Your task to perform on an android device: Open CNN.com Image 0: 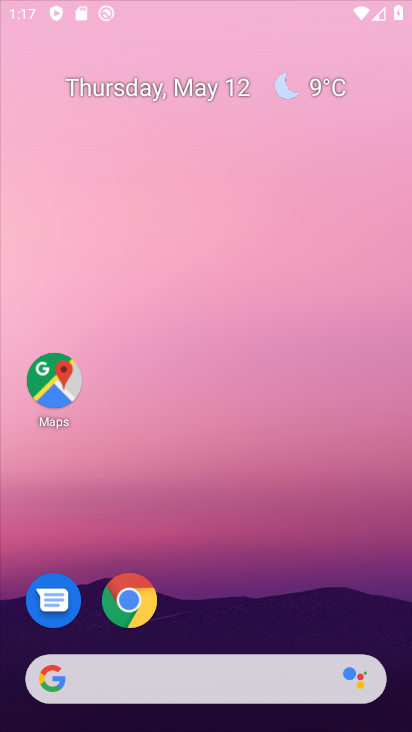
Step 0: press home button
Your task to perform on an android device: Open CNN.com Image 1: 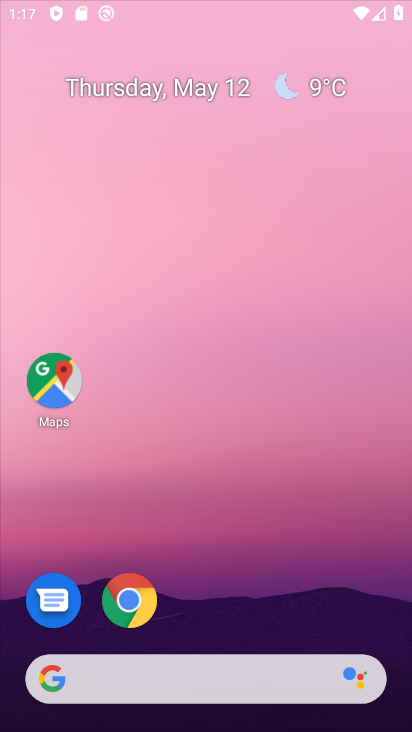
Step 1: click (324, 353)
Your task to perform on an android device: Open CNN.com Image 2: 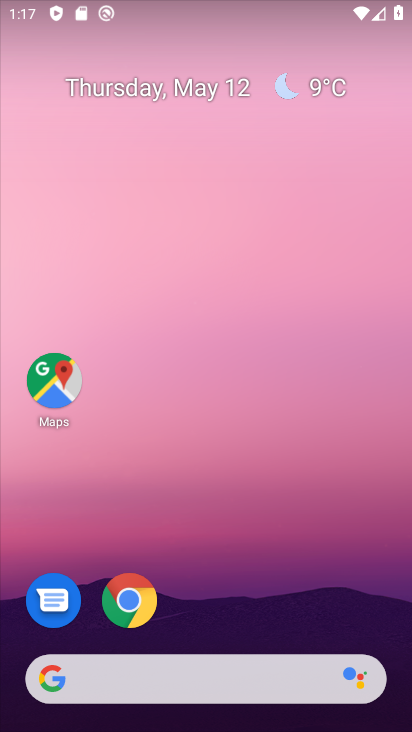
Step 2: press home button
Your task to perform on an android device: Open CNN.com Image 3: 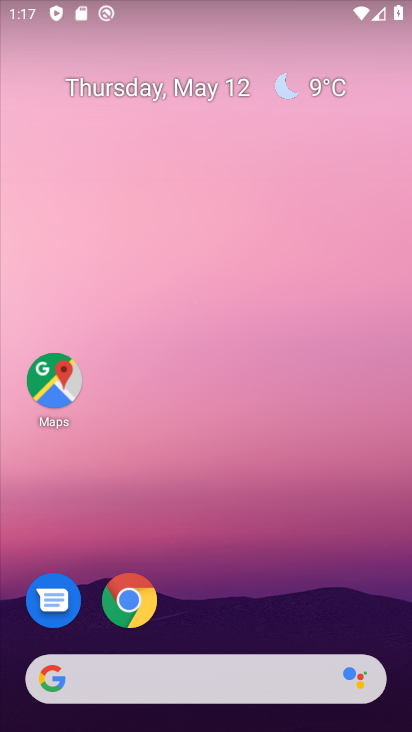
Step 3: click (117, 602)
Your task to perform on an android device: Open CNN.com Image 4: 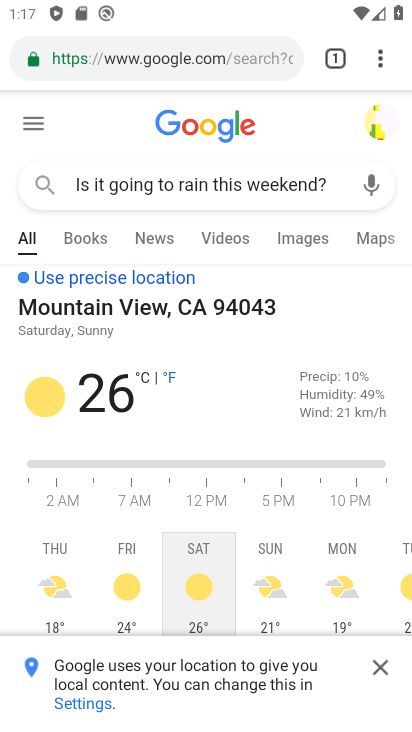
Step 4: click (183, 50)
Your task to perform on an android device: Open CNN.com Image 5: 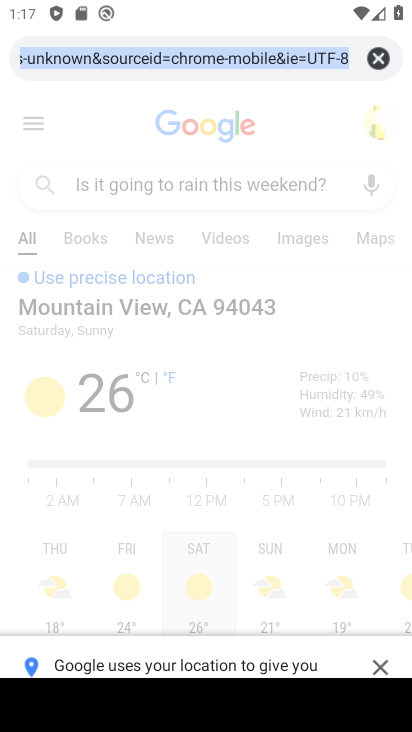
Step 5: click (370, 62)
Your task to perform on an android device: Open CNN.com Image 6: 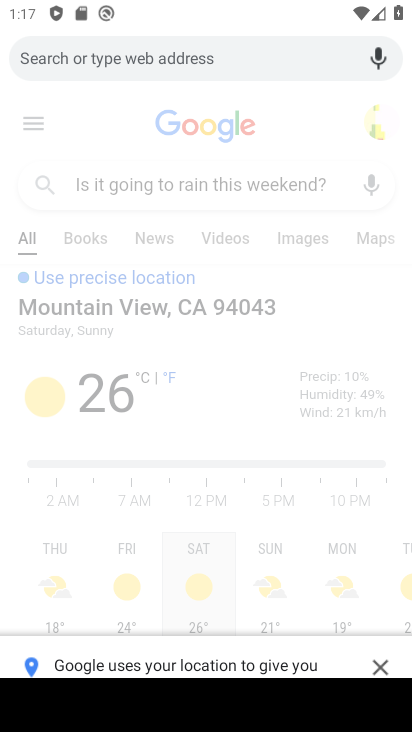
Step 6: type "CNN.com"
Your task to perform on an android device: Open CNN.com Image 7: 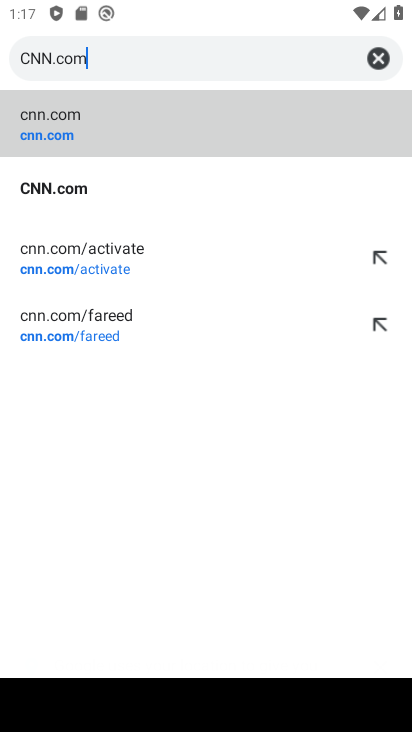
Step 7: click (144, 142)
Your task to perform on an android device: Open CNN.com Image 8: 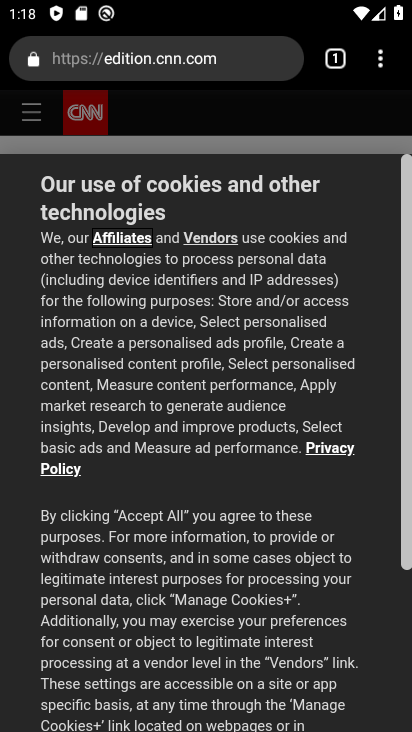
Step 8: task complete